Your task to perform on an android device: Is it going to rain today? Image 0: 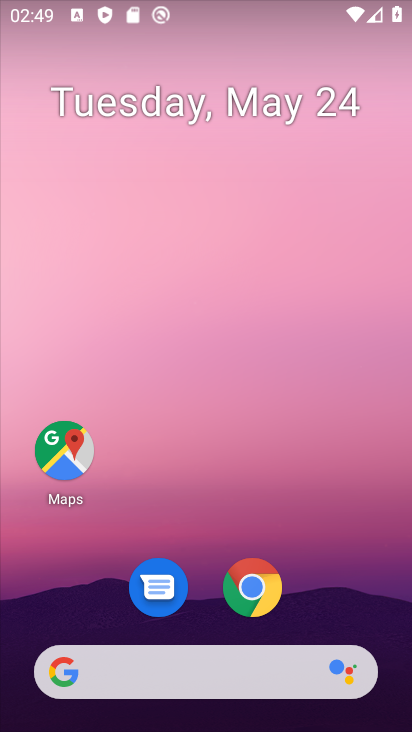
Step 0: click (187, 674)
Your task to perform on an android device: Is it going to rain today? Image 1: 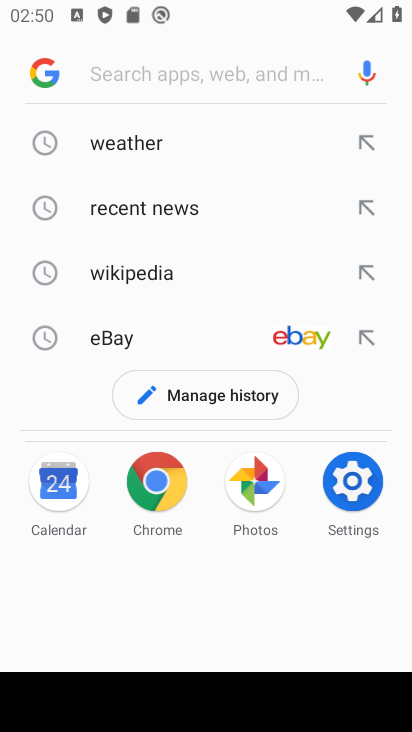
Step 1: type "Is it going to rain today?"
Your task to perform on an android device: Is it going to rain today? Image 2: 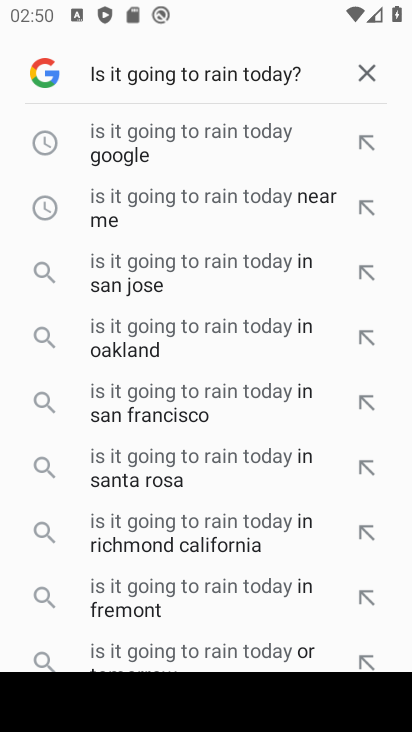
Step 2: click (255, 128)
Your task to perform on an android device: Is it going to rain today? Image 3: 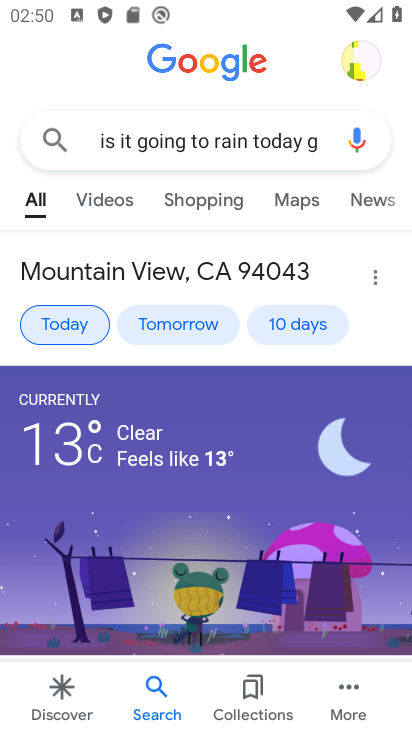
Step 3: task complete